Your task to perform on an android device: open app "Indeed Job Search" (install if not already installed) Image 0: 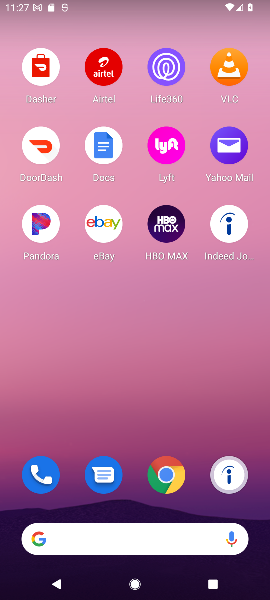
Step 0: drag from (125, 468) to (33, 0)
Your task to perform on an android device: open app "Indeed Job Search" (install if not already installed) Image 1: 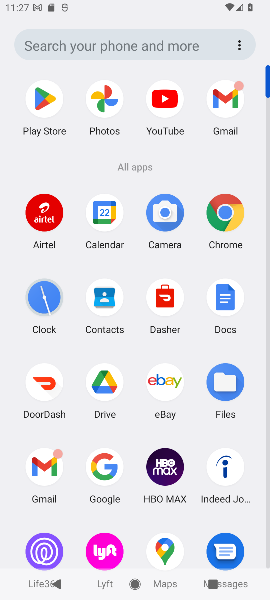
Step 1: click (39, 104)
Your task to perform on an android device: open app "Indeed Job Search" (install if not already installed) Image 2: 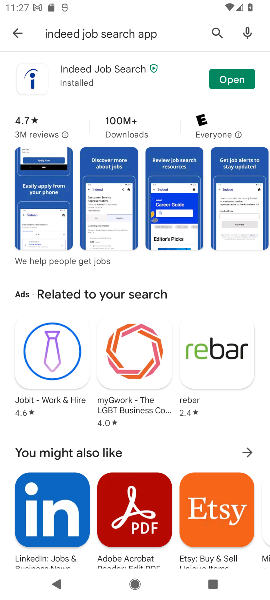
Step 2: click (238, 73)
Your task to perform on an android device: open app "Indeed Job Search" (install if not already installed) Image 3: 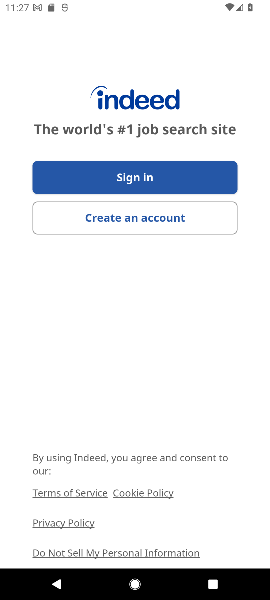
Step 3: task complete